Your task to perform on an android device: Show me productivity apps on the Play Store Image 0: 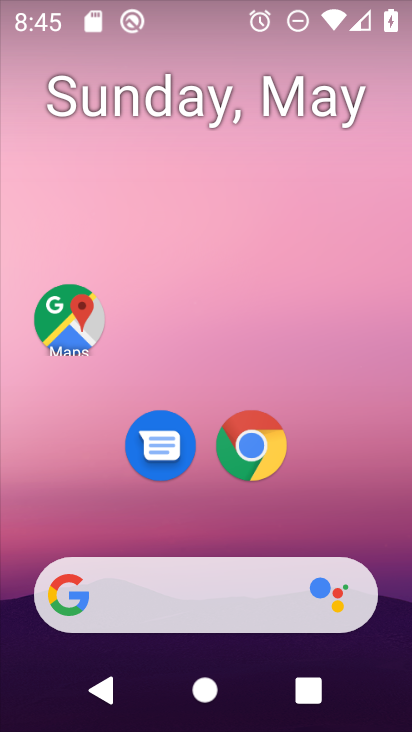
Step 0: drag from (268, 557) to (325, 42)
Your task to perform on an android device: Show me productivity apps on the Play Store Image 1: 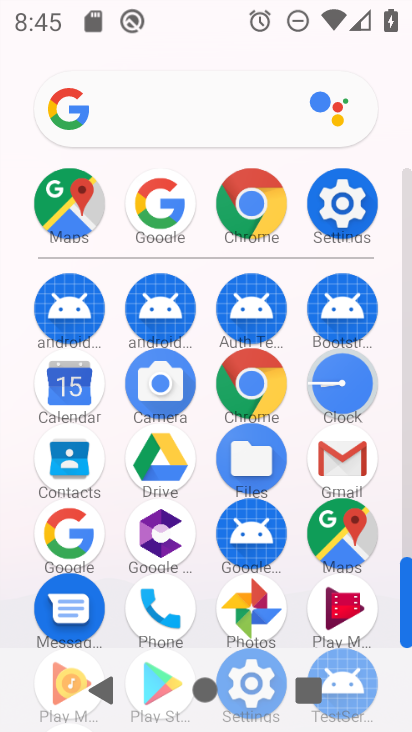
Step 1: drag from (246, 529) to (292, 174)
Your task to perform on an android device: Show me productivity apps on the Play Store Image 2: 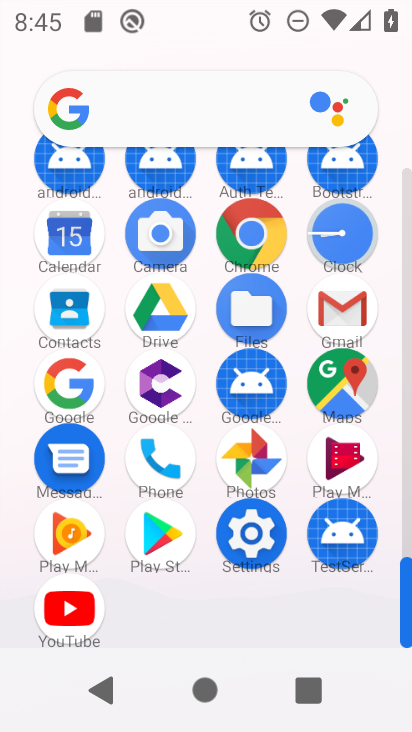
Step 2: click (154, 543)
Your task to perform on an android device: Show me productivity apps on the Play Store Image 3: 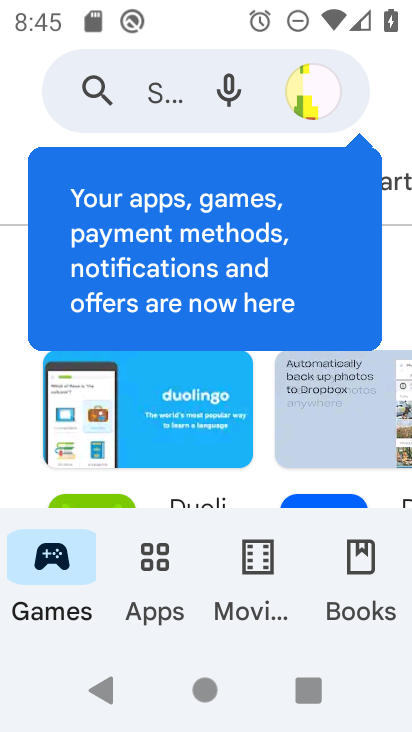
Step 3: press home button
Your task to perform on an android device: Show me productivity apps on the Play Store Image 4: 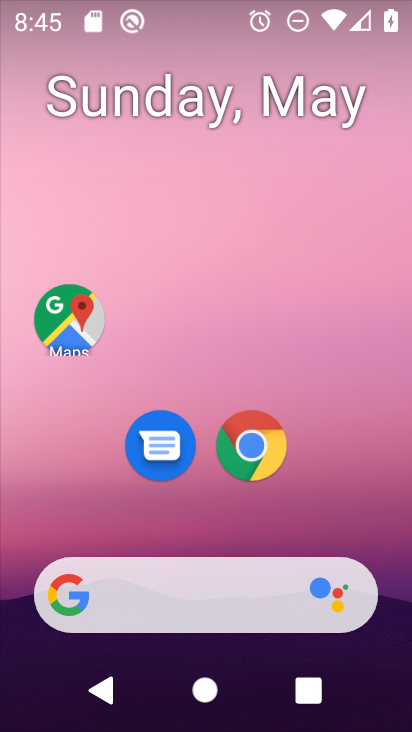
Step 4: drag from (160, 633) to (197, 127)
Your task to perform on an android device: Show me productivity apps on the Play Store Image 5: 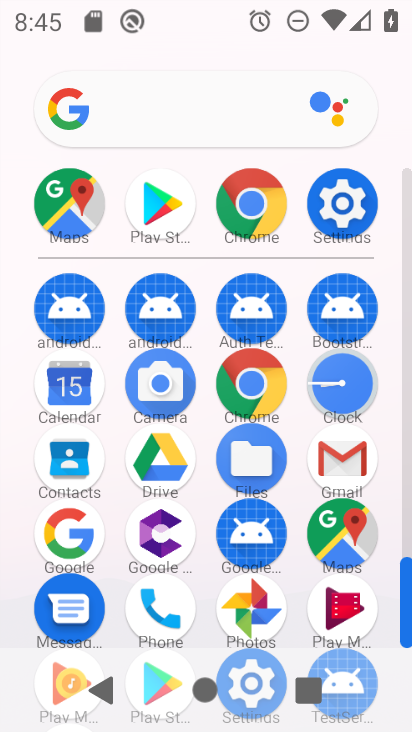
Step 5: drag from (211, 454) to (313, 12)
Your task to perform on an android device: Show me productivity apps on the Play Store Image 6: 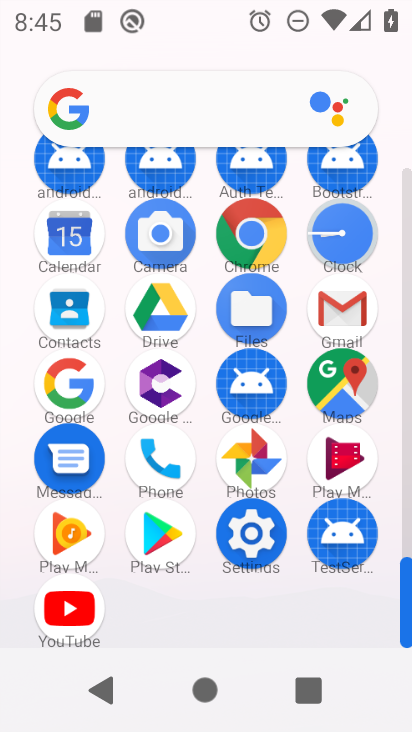
Step 6: click (161, 555)
Your task to perform on an android device: Show me productivity apps on the Play Store Image 7: 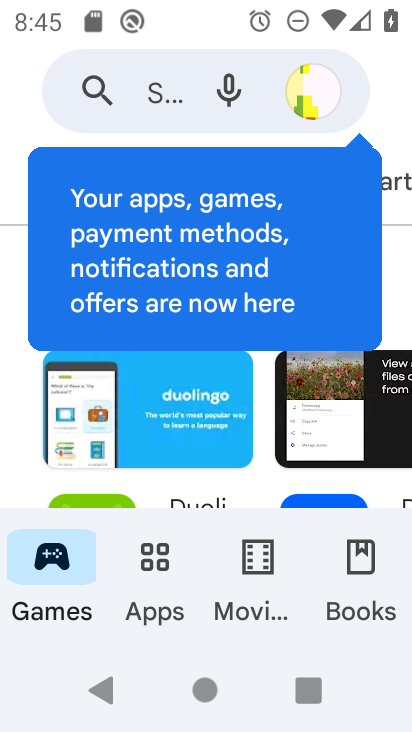
Step 7: click (157, 85)
Your task to perform on an android device: Show me productivity apps on the Play Store Image 8: 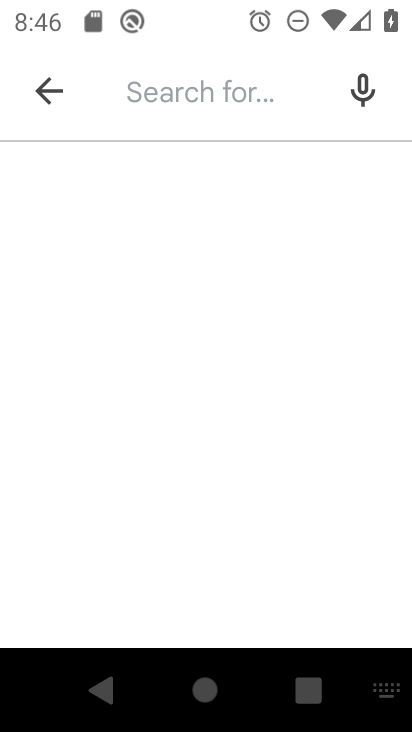
Step 8: type "productivity aaps"
Your task to perform on an android device: Show me productivity apps on the Play Store Image 9: 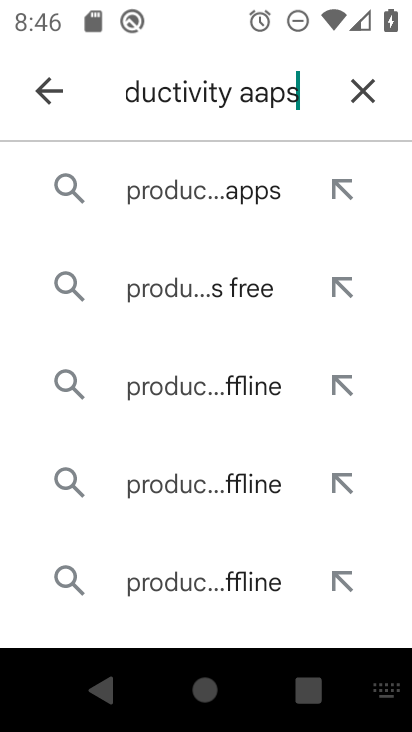
Step 9: click (254, 173)
Your task to perform on an android device: Show me productivity apps on the Play Store Image 10: 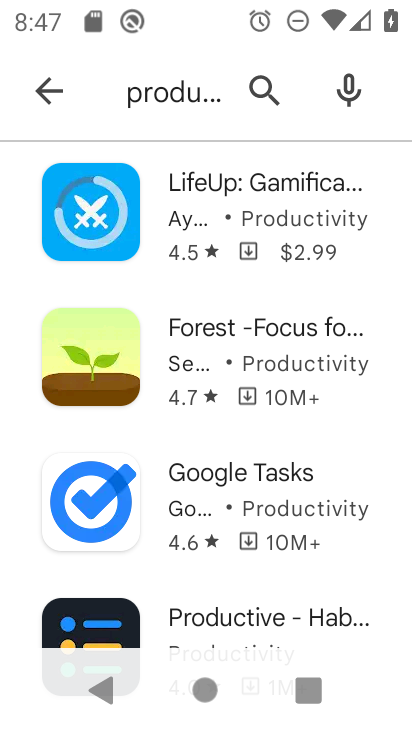
Step 10: task complete